Your task to perform on an android device: turn on the 24-hour format for clock Image 0: 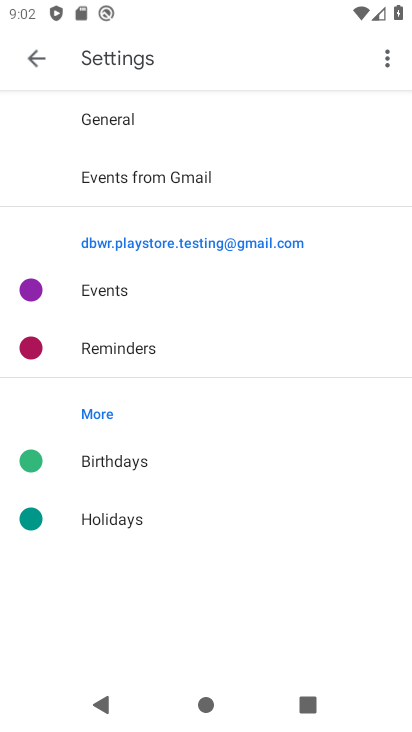
Step 0: press home button
Your task to perform on an android device: turn on the 24-hour format for clock Image 1: 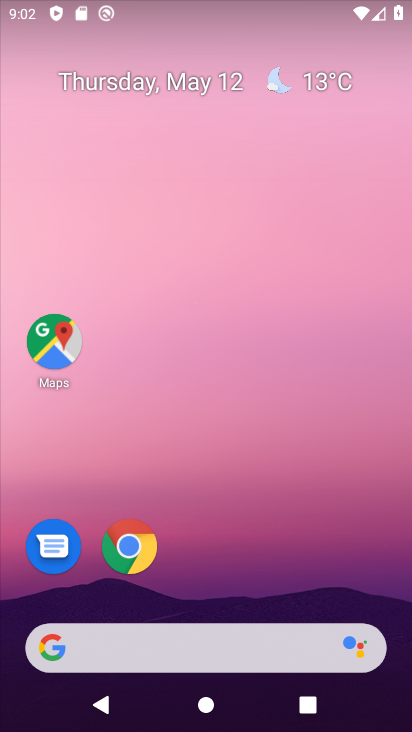
Step 1: drag from (263, 567) to (317, 55)
Your task to perform on an android device: turn on the 24-hour format for clock Image 2: 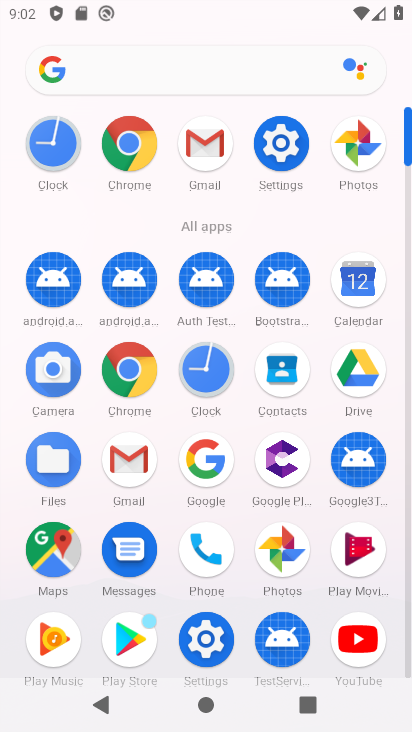
Step 2: click (209, 359)
Your task to perform on an android device: turn on the 24-hour format for clock Image 3: 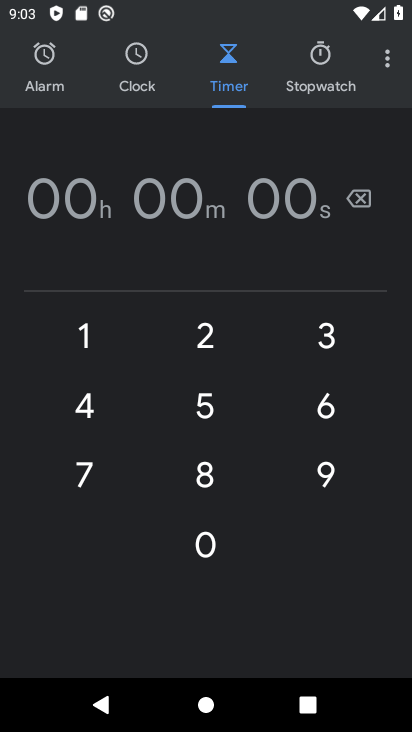
Step 3: click (382, 63)
Your task to perform on an android device: turn on the 24-hour format for clock Image 4: 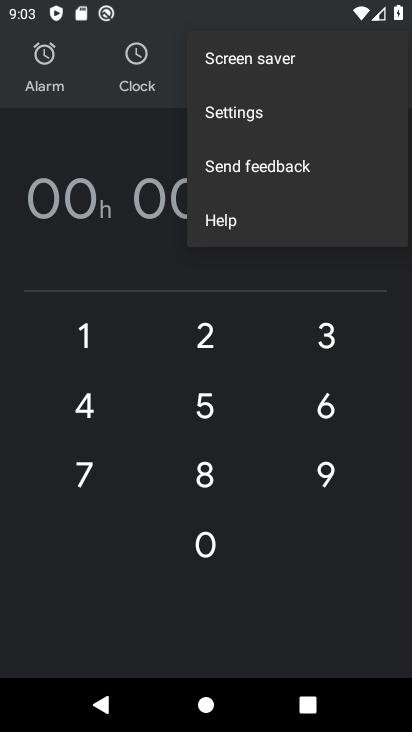
Step 4: click (241, 106)
Your task to perform on an android device: turn on the 24-hour format for clock Image 5: 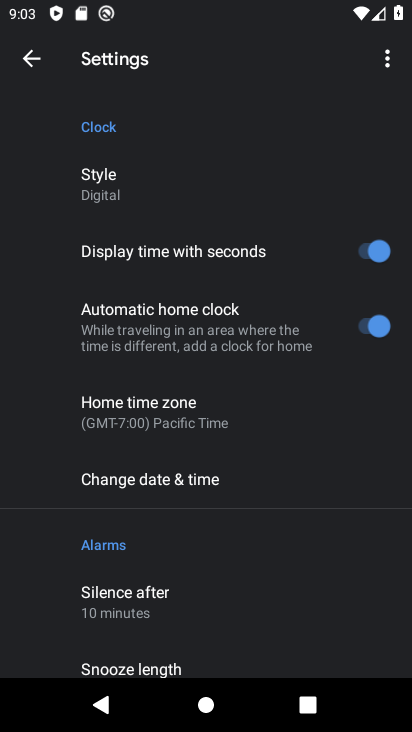
Step 5: click (195, 476)
Your task to perform on an android device: turn on the 24-hour format for clock Image 6: 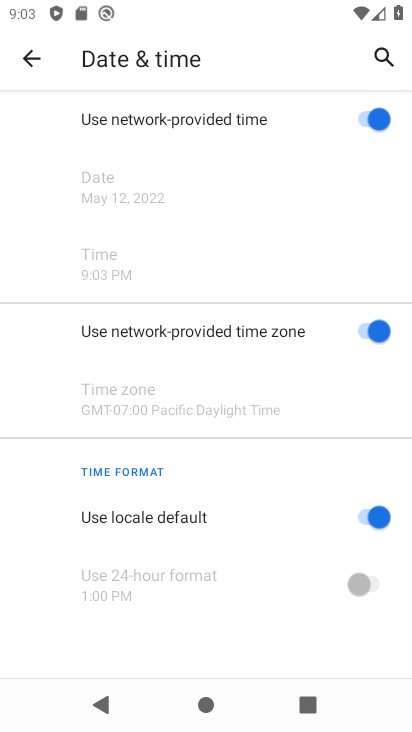
Step 6: drag from (261, 611) to (321, 313)
Your task to perform on an android device: turn on the 24-hour format for clock Image 7: 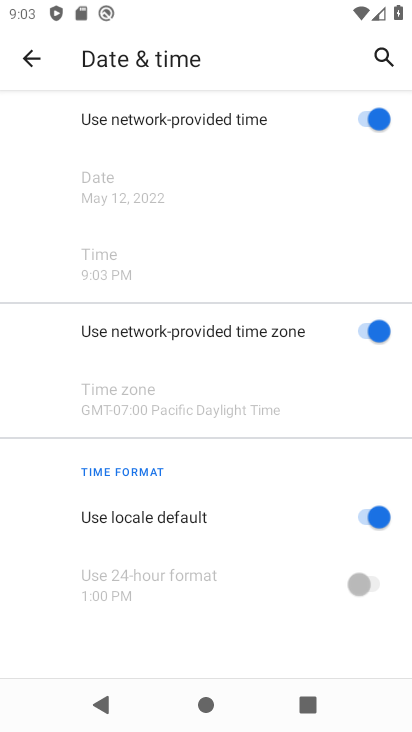
Step 7: click (373, 519)
Your task to perform on an android device: turn on the 24-hour format for clock Image 8: 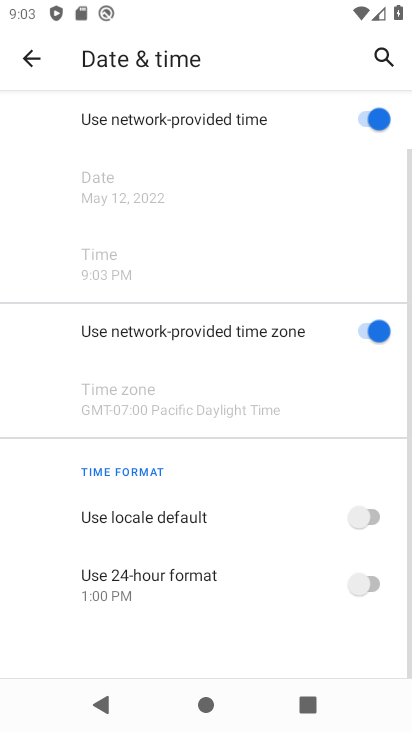
Step 8: click (365, 583)
Your task to perform on an android device: turn on the 24-hour format for clock Image 9: 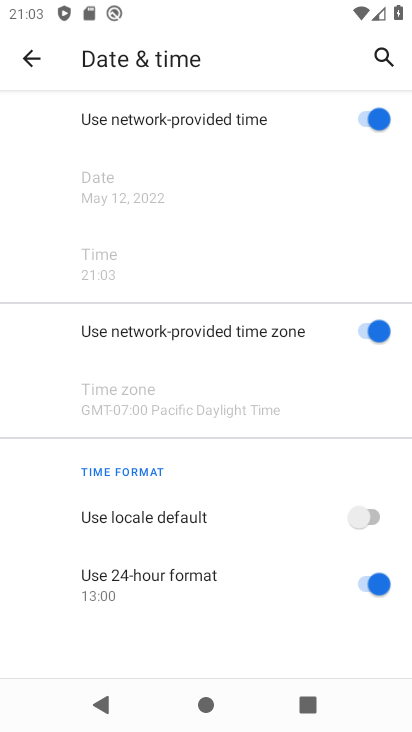
Step 9: task complete